Your task to perform on an android device: toggle notification dots Image 0: 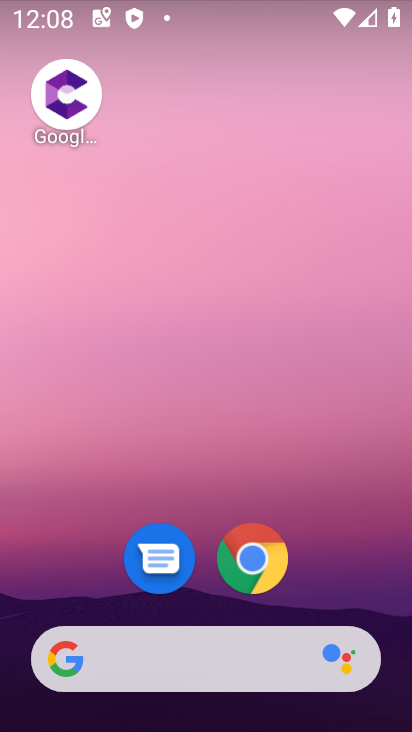
Step 0: drag from (383, 627) to (182, 14)
Your task to perform on an android device: toggle notification dots Image 1: 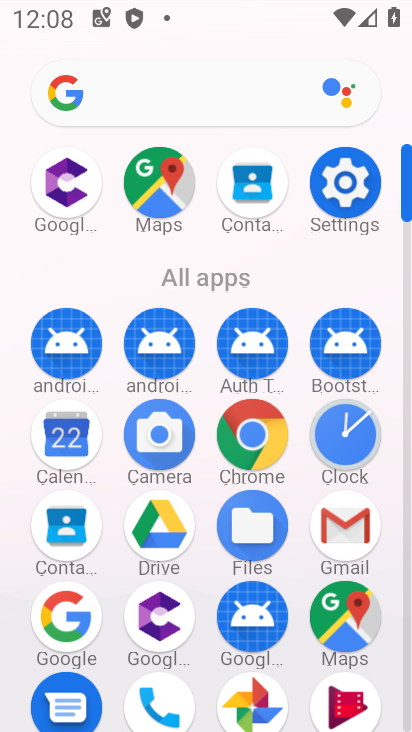
Step 1: click (341, 207)
Your task to perform on an android device: toggle notification dots Image 2: 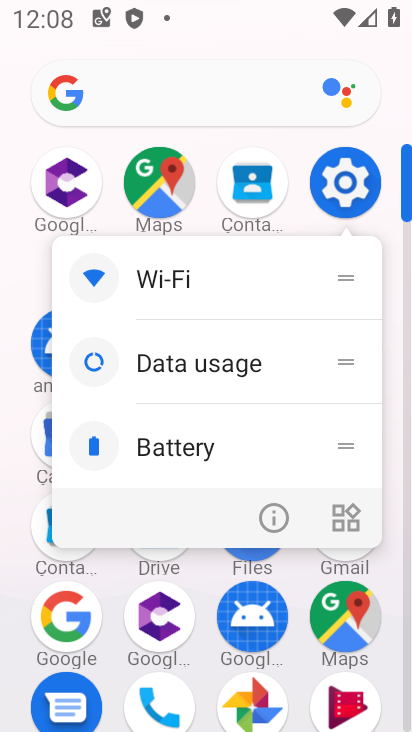
Step 2: click (347, 185)
Your task to perform on an android device: toggle notification dots Image 3: 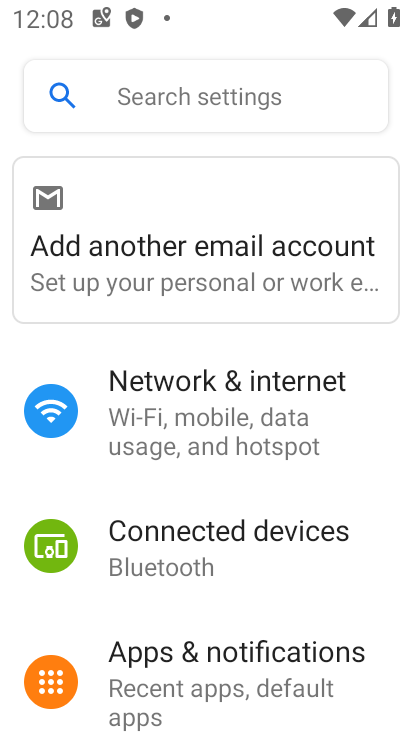
Step 3: click (307, 668)
Your task to perform on an android device: toggle notification dots Image 4: 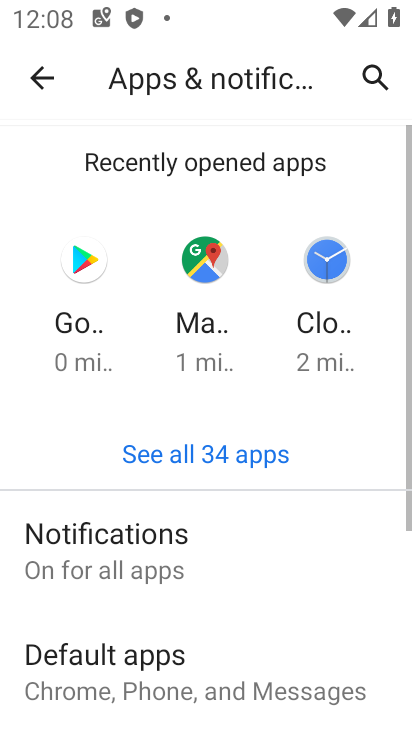
Step 4: click (211, 561)
Your task to perform on an android device: toggle notification dots Image 5: 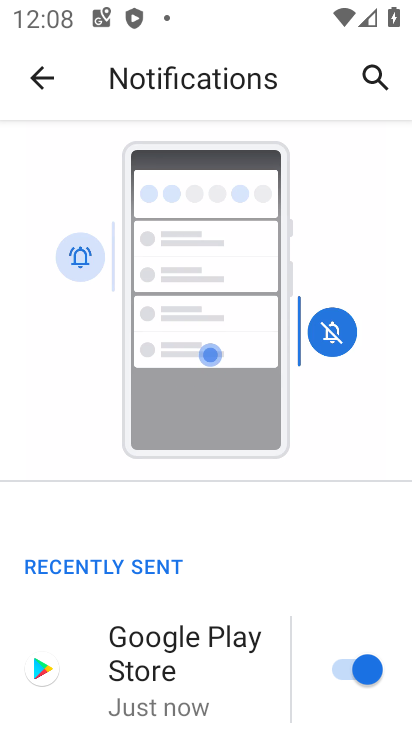
Step 5: drag from (127, 649) to (177, 64)
Your task to perform on an android device: toggle notification dots Image 6: 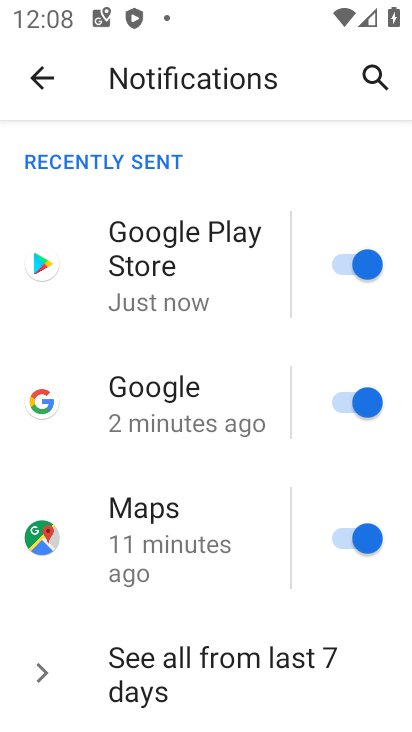
Step 6: drag from (178, 621) to (191, 85)
Your task to perform on an android device: toggle notification dots Image 7: 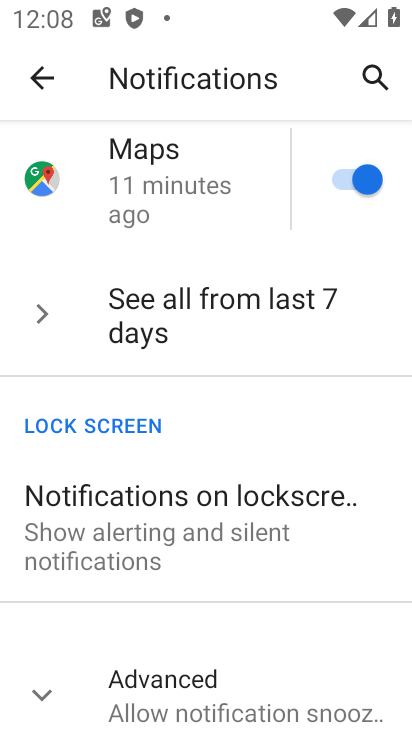
Step 7: drag from (90, 635) to (131, 331)
Your task to perform on an android device: toggle notification dots Image 8: 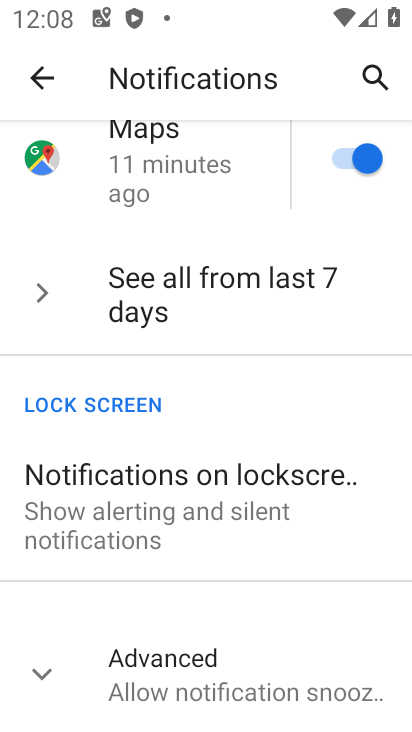
Step 8: click (20, 661)
Your task to perform on an android device: toggle notification dots Image 9: 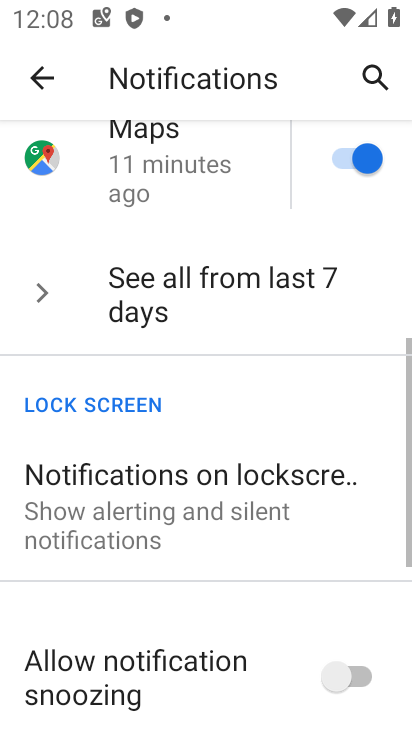
Step 9: drag from (86, 681) to (154, 220)
Your task to perform on an android device: toggle notification dots Image 10: 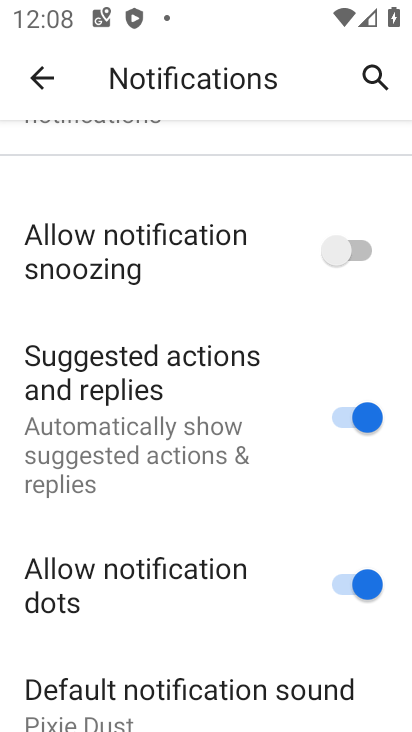
Step 10: click (311, 553)
Your task to perform on an android device: toggle notification dots Image 11: 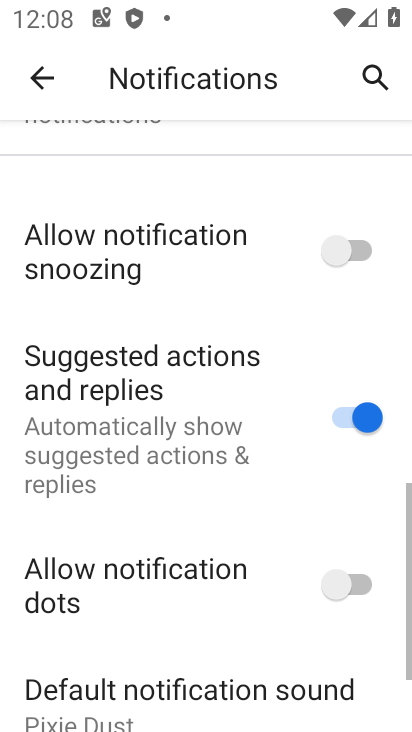
Step 11: task complete